Your task to perform on an android device: move an email to a new category in the gmail app Image 0: 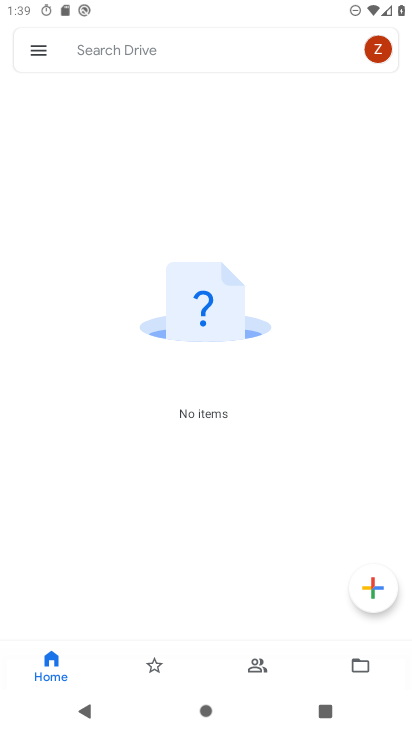
Step 0: press home button
Your task to perform on an android device: move an email to a new category in the gmail app Image 1: 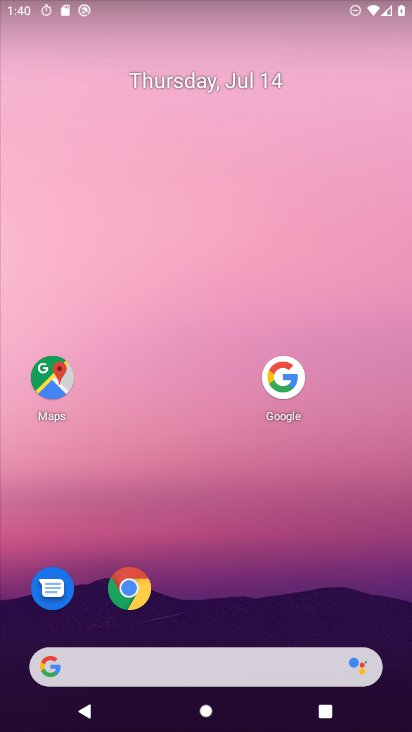
Step 1: drag from (197, 622) to (297, 122)
Your task to perform on an android device: move an email to a new category in the gmail app Image 2: 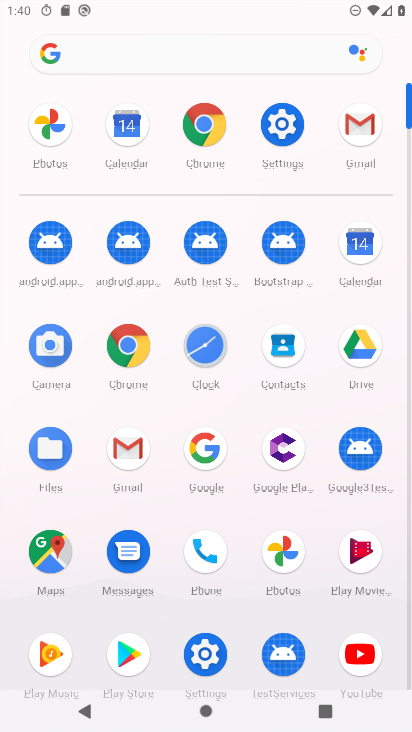
Step 2: click (369, 128)
Your task to perform on an android device: move an email to a new category in the gmail app Image 3: 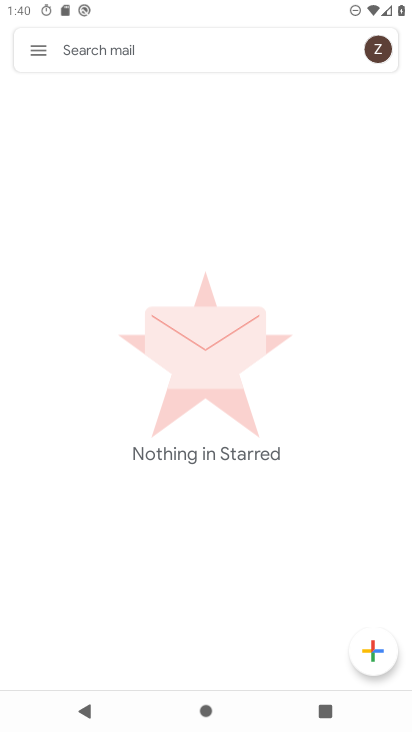
Step 3: click (46, 46)
Your task to perform on an android device: move an email to a new category in the gmail app Image 4: 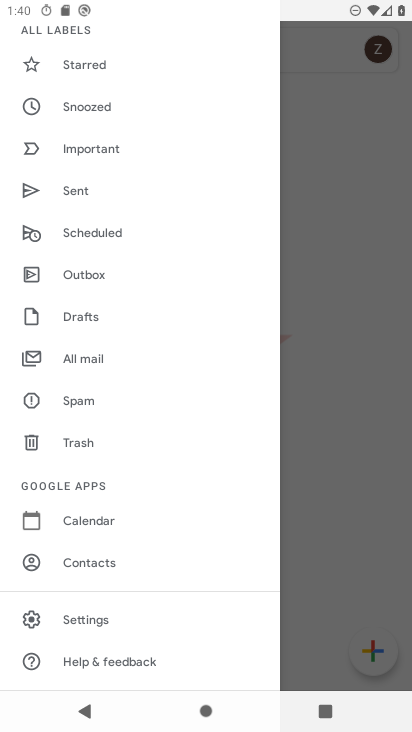
Step 4: click (91, 356)
Your task to perform on an android device: move an email to a new category in the gmail app Image 5: 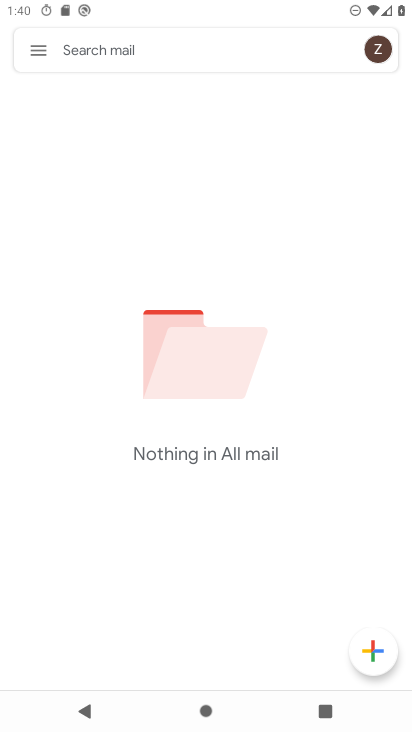
Step 5: task complete